Your task to perform on an android device: toggle wifi Image 0: 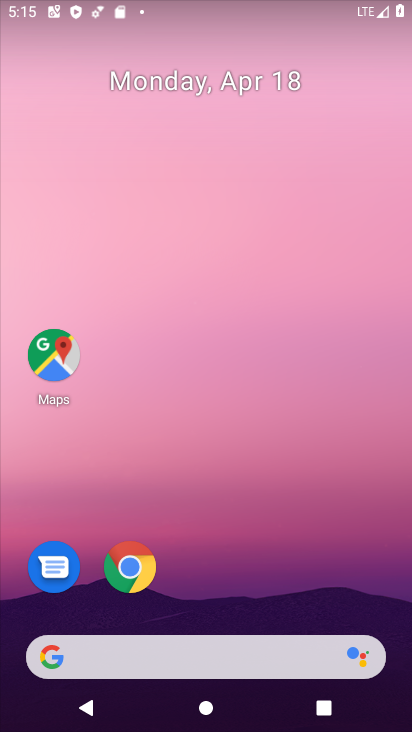
Step 0: drag from (403, 650) to (218, 1)
Your task to perform on an android device: toggle wifi Image 1: 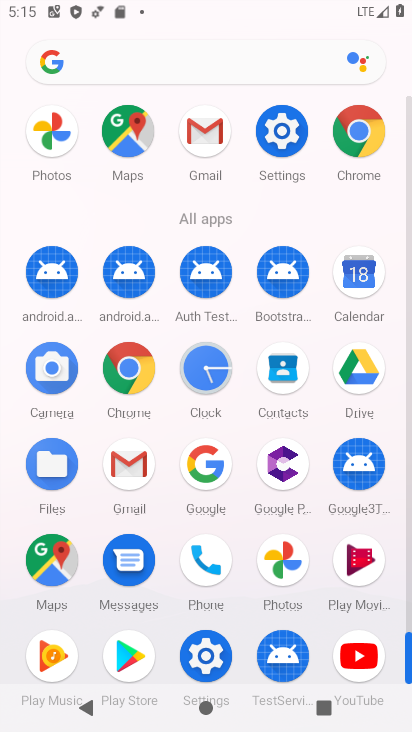
Step 1: click (203, 656)
Your task to perform on an android device: toggle wifi Image 2: 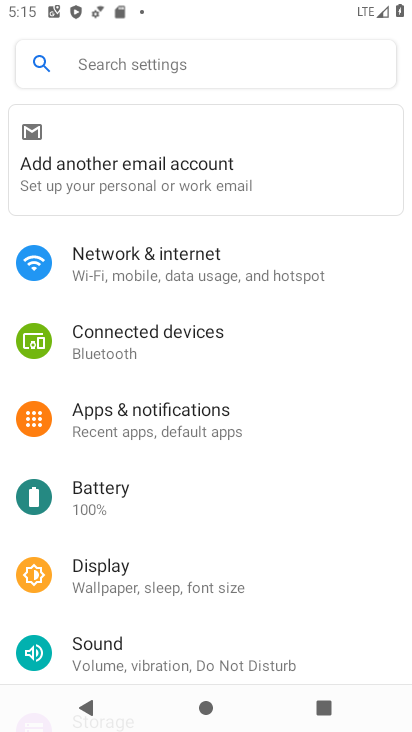
Step 2: drag from (377, 535) to (385, 157)
Your task to perform on an android device: toggle wifi Image 3: 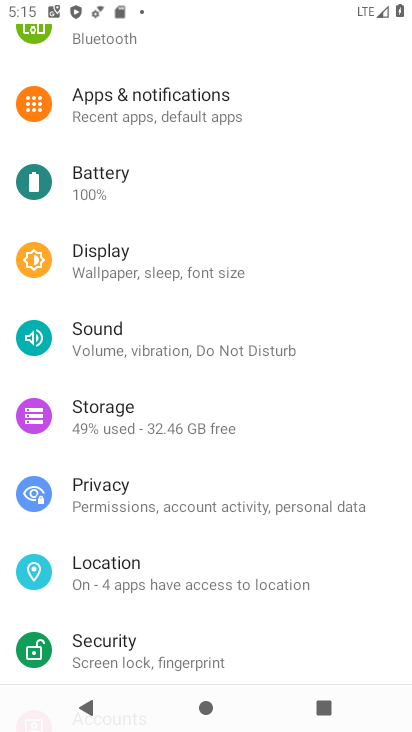
Step 3: drag from (364, 432) to (351, 87)
Your task to perform on an android device: toggle wifi Image 4: 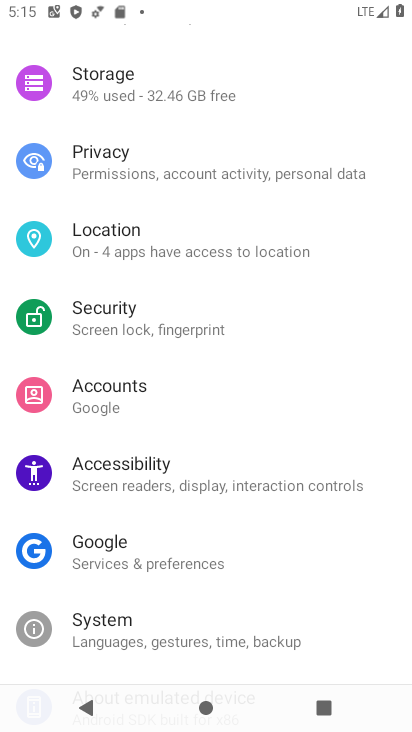
Step 4: drag from (352, 455) to (354, 91)
Your task to perform on an android device: toggle wifi Image 5: 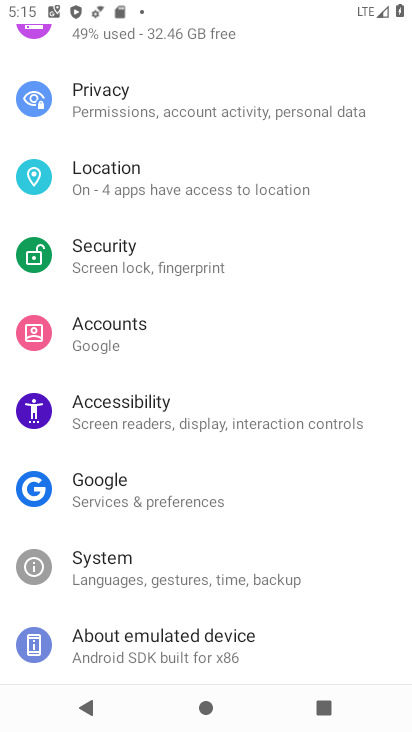
Step 5: drag from (288, 121) to (264, 503)
Your task to perform on an android device: toggle wifi Image 6: 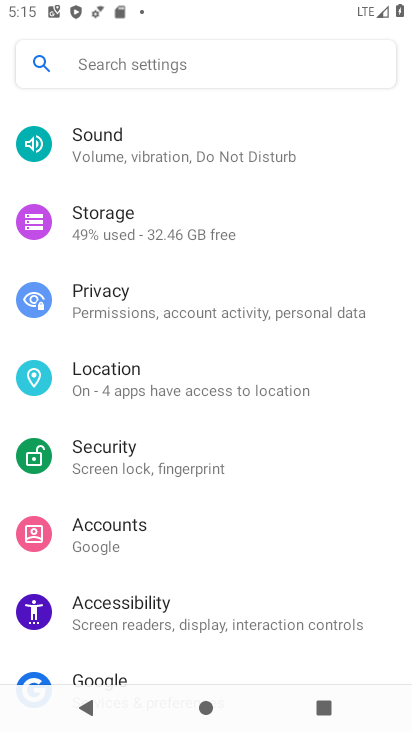
Step 6: drag from (272, 179) to (245, 513)
Your task to perform on an android device: toggle wifi Image 7: 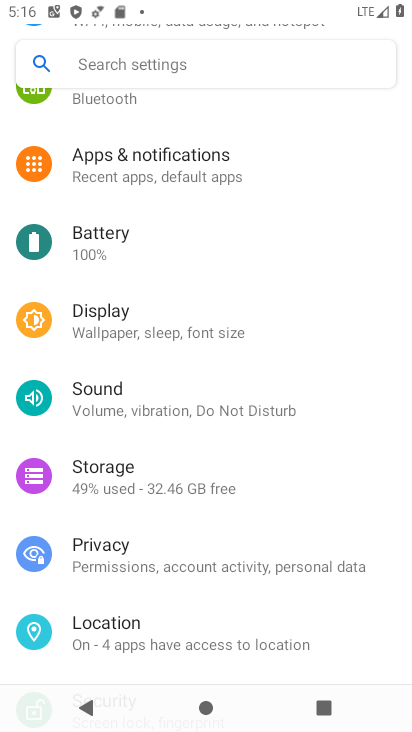
Step 7: drag from (302, 154) to (291, 464)
Your task to perform on an android device: toggle wifi Image 8: 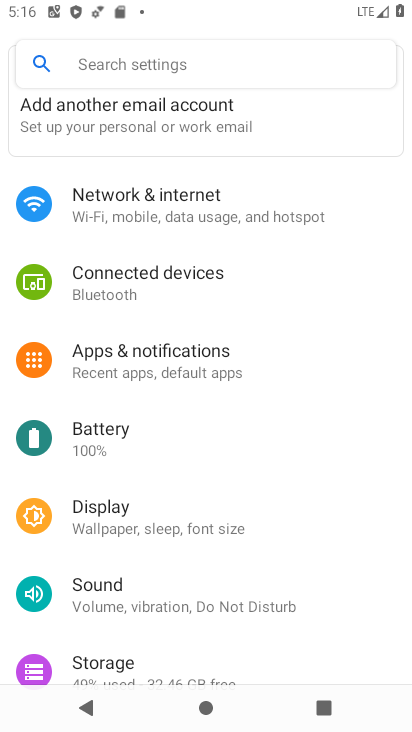
Step 8: click (168, 197)
Your task to perform on an android device: toggle wifi Image 9: 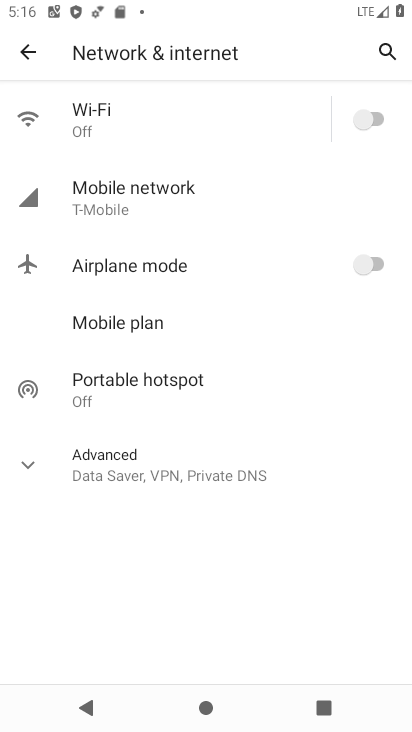
Step 9: click (376, 122)
Your task to perform on an android device: toggle wifi Image 10: 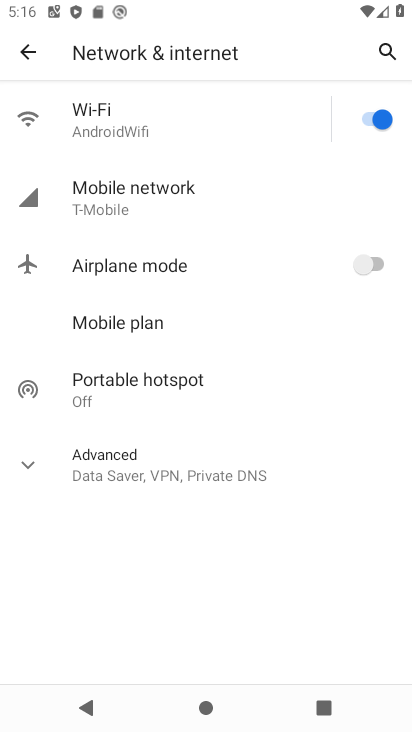
Step 10: task complete